Your task to perform on an android device: Open settings Image 0: 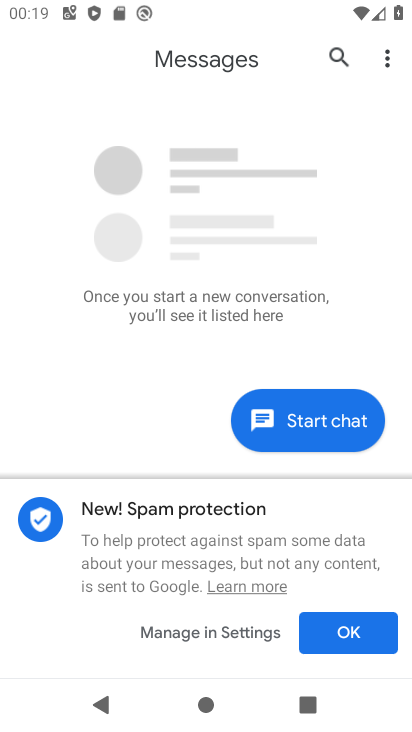
Step 0: press home button
Your task to perform on an android device: Open settings Image 1: 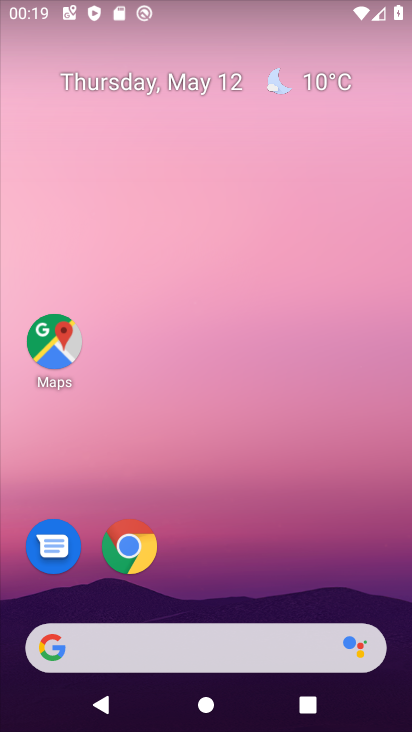
Step 1: drag from (197, 605) to (250, 285)
Your task to perform on an android device: Open settings Image 2: 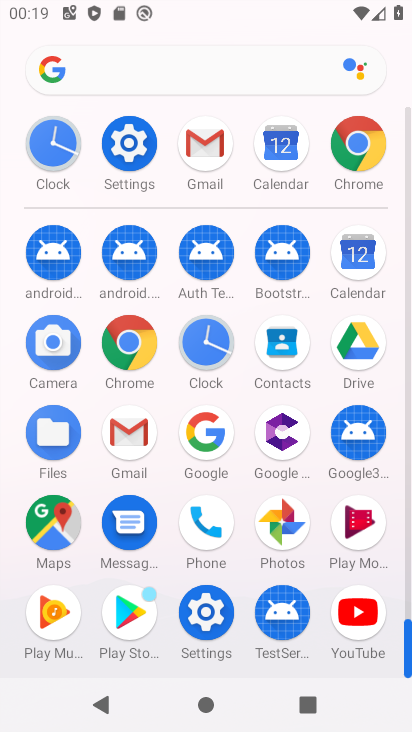
Step 2: click (206, 613)
Your task to perform on an android device: Open settings Image 3: 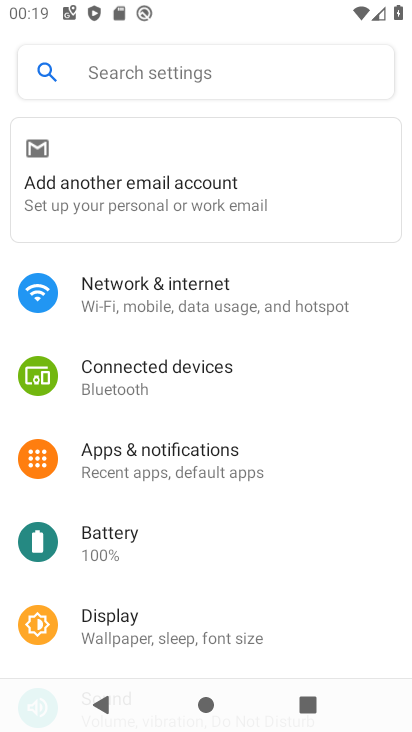
Step 3: task complete